Your task to perform on an android device: open a bookmark in the chrome app Image 0: 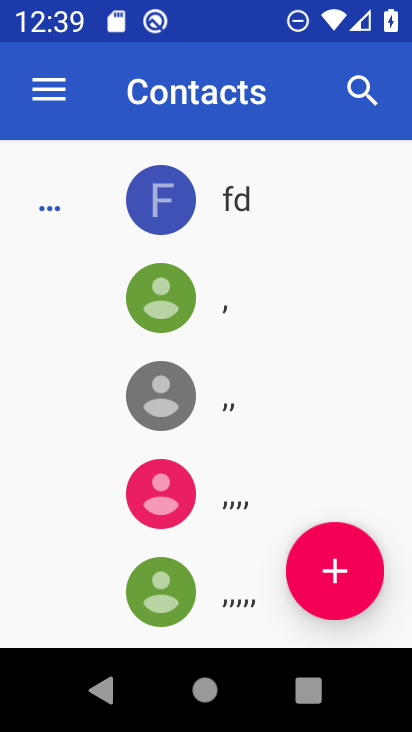
Step 0: press home button
Your task to perform on an android device: open a bookmark in the chrome app Image 1: 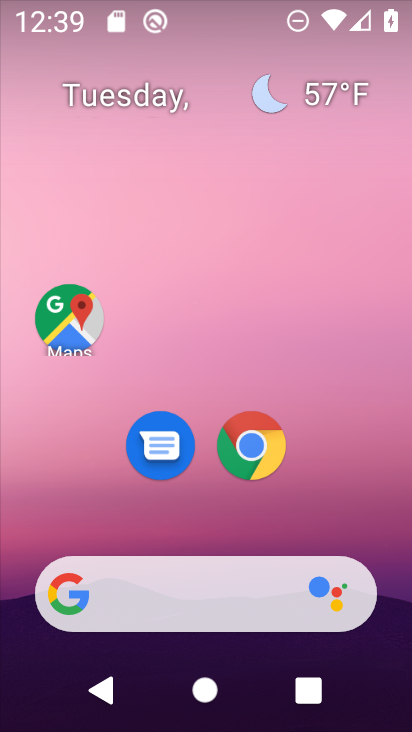
Step 1: drag from (393, 521) to (357, 201)
Your task to perform on an android device: open a bookmark in the chrome app Image 2: 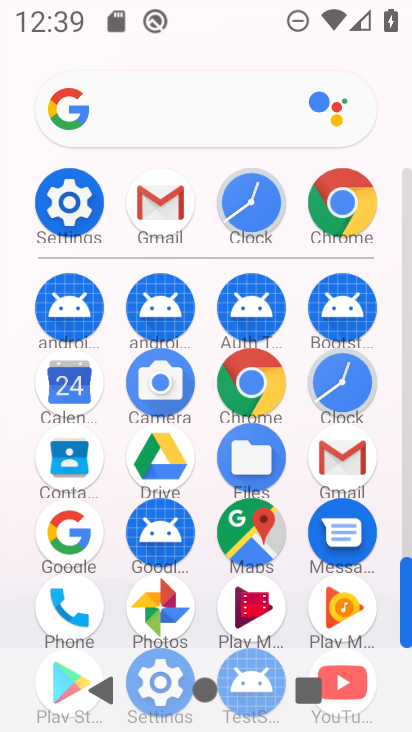
Step 2: click (276, 394)
Your task to perform on an android device: open a bookmark in the chrome app Image 3: 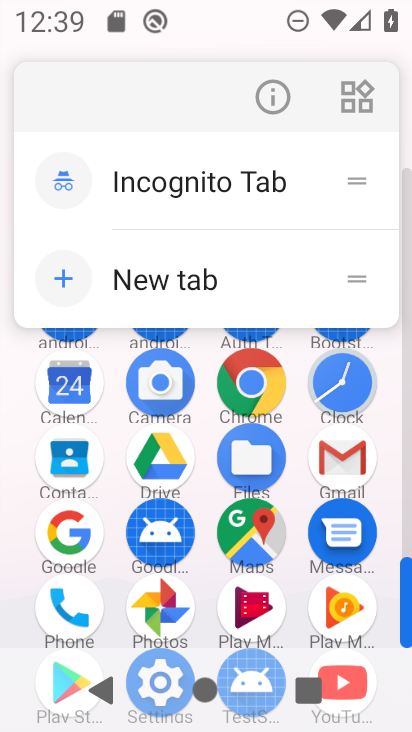
Step 3: click (276, 394)
Your task to perform on an android device: open a bookmark in the chrome app Image 4: 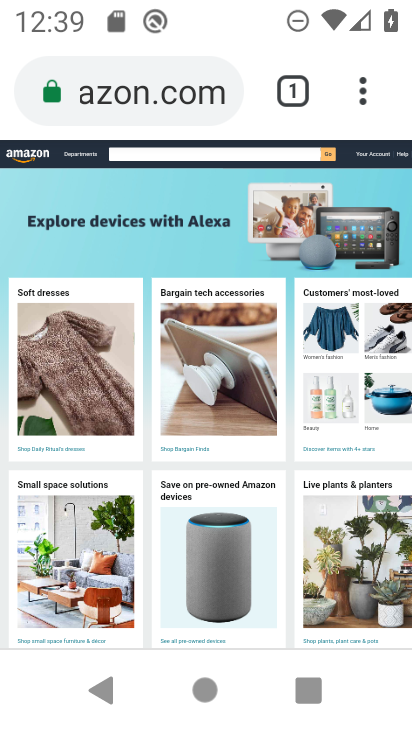
Step 4: click (366, 105)
Your task to perform on an android device: open a bookmark in the chrome app Image 5: 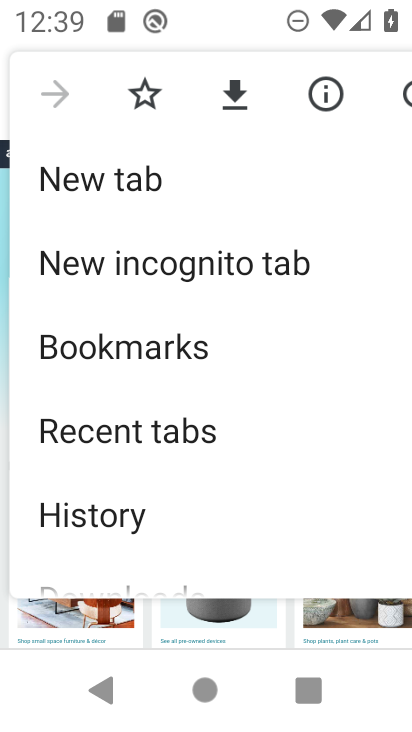
Step 5: drag from (339, 443) to (346, 315)
Your task to perform on an android device: open a bookmark in the chrome app Image 6: 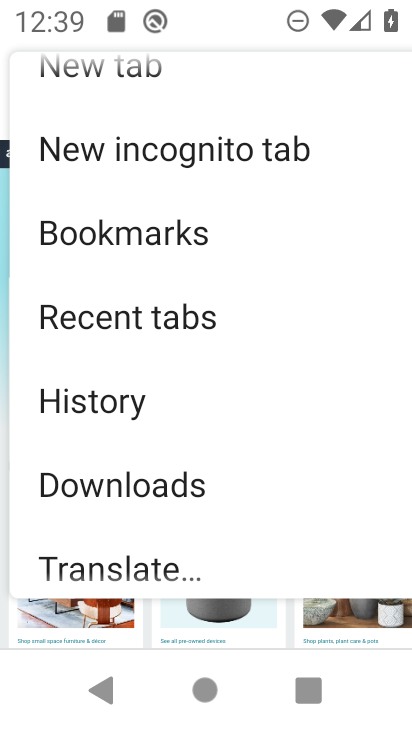
Step 6: drag from (323, 510) to (321, 318)
Your task to perform on an android device: open a bookmark in the chrome app Image 7: 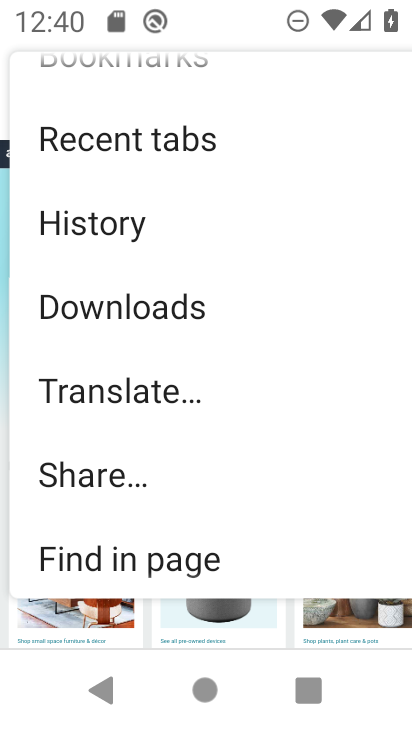
Step 7: drag from (327, 524) to (312, 349)
Your task to perform on an android device: open a bookmark in the chrome app Image 8: 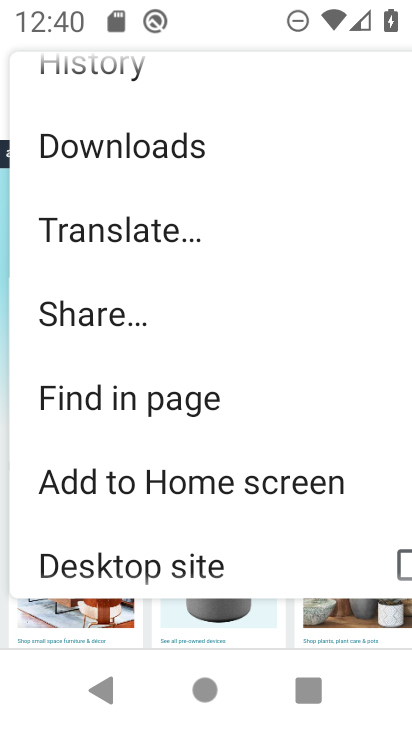
Step 8: drag from (337, 537) to (329, 386)
Your task to perform on an android device: open a bookmark in the chrome app Image 9: 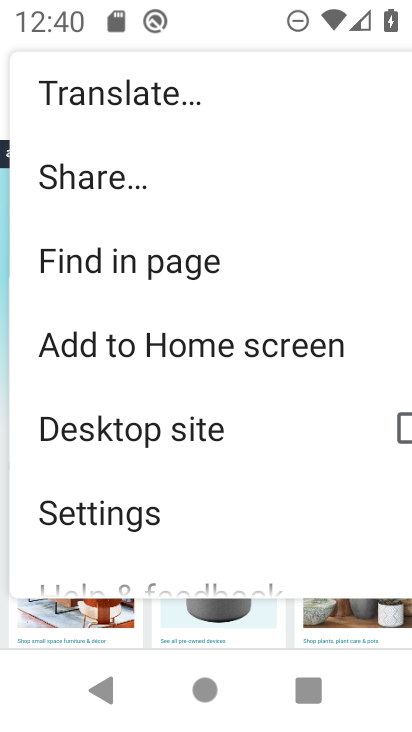
Step 9: drag from (345, 508) to (333, 388)
Your task to perform on an android device: open a bookmark in the chrome app Image 10: 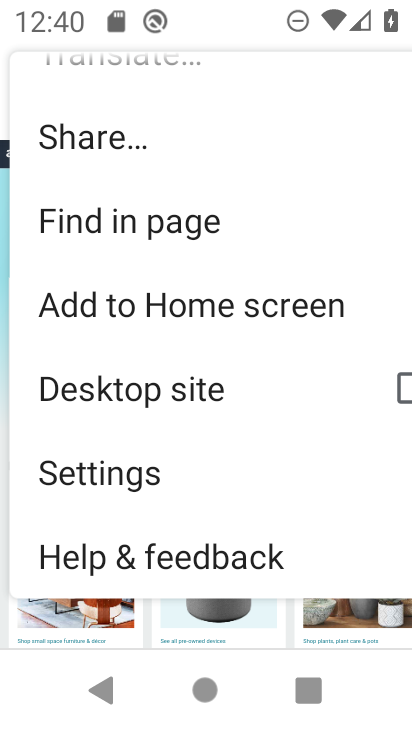
Step 10: drag from (339, 250) to (323, 390)
Your task to perform on an android device: open a bookmark in the chrome app Image 11: 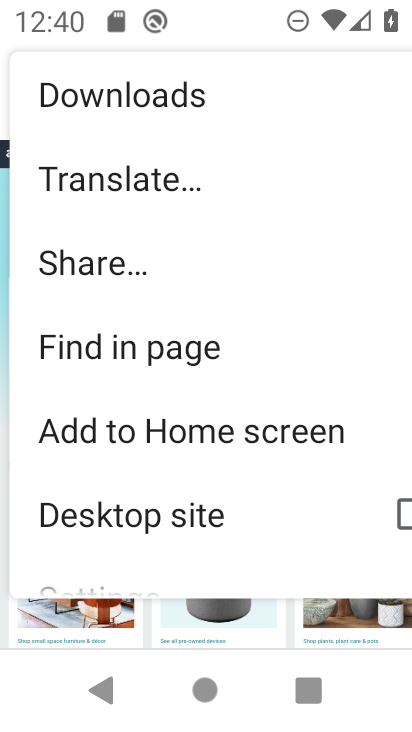
Step 11: drag from (311, 260) to (321, 361)
Your task to perform on an android device: open a bookmark in the chrome app Image 12: 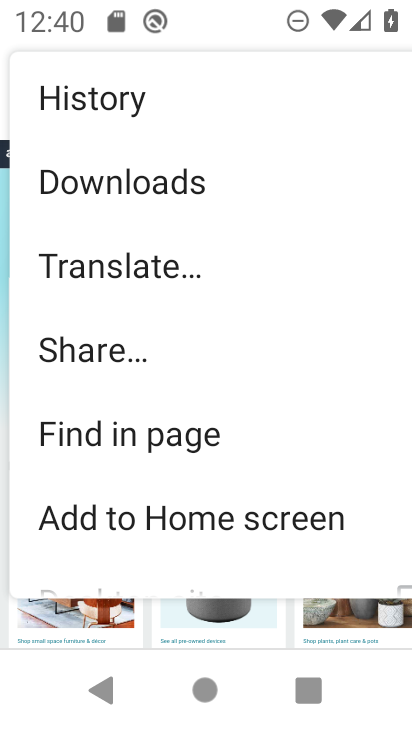
Step 12: drag from (324, 254) to (302, 370)
Your task to perform on an android device: open a bookmark in the chrome app Image 13: 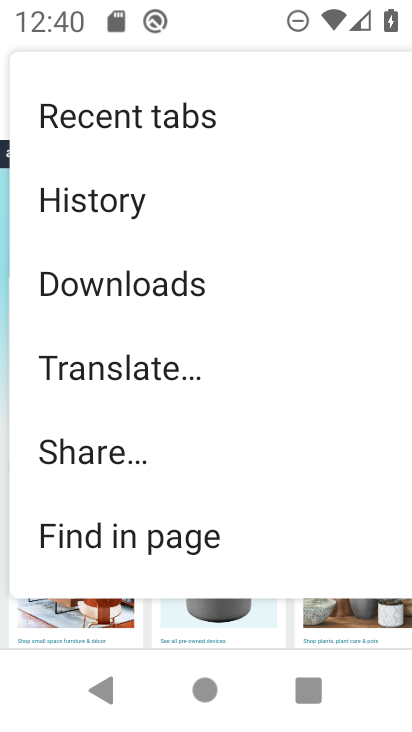
Step 13: drag from (323, 252) to (327, 431)
Your task to perform on an android device: open a bookmark in the chrome app Image 14: 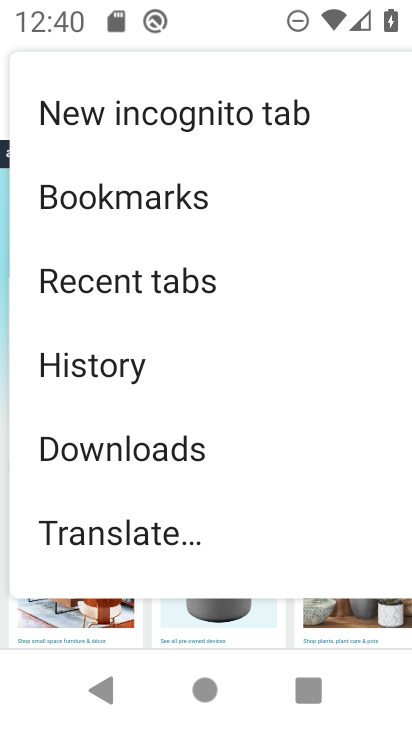
Step 14: drag from (328, 241) to (319, 365)
Your task to perform on an android device: open a bookmark in the chrome app Image 15: 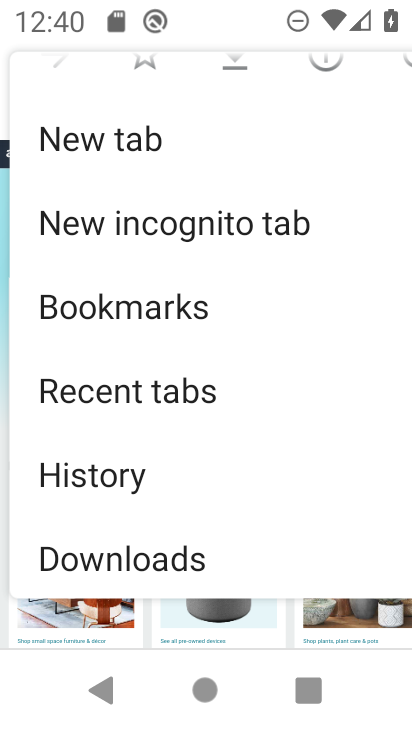
Step 15: drag from (336, 203) to (330, 340)
Your task to perform on an android device: open a bookmark in the chrome app Image 16: 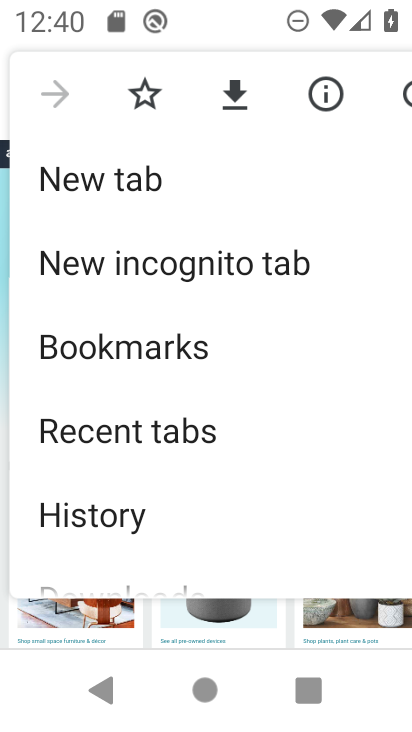
Step 16: click (213, 366)
Your task to perform on an android device: open a bookmark in the chrome app Image 17: 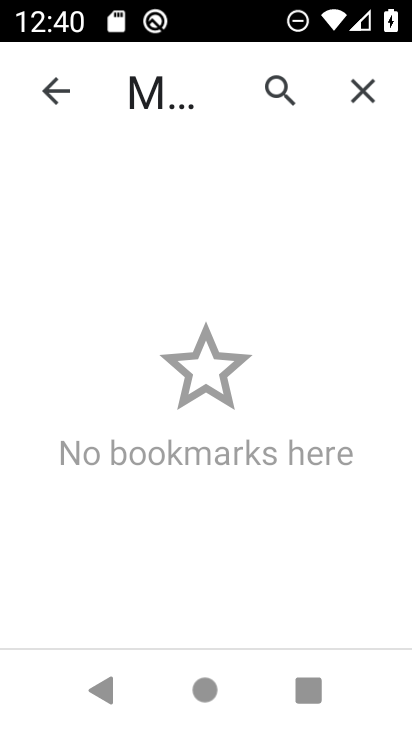
Step 17: task complete